Your task to perform on an android device: turn off smart reply in the gmail app Image 0: 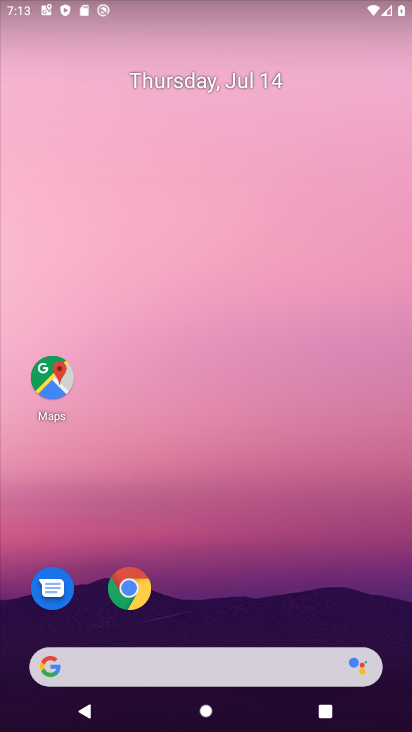
Step 0: drag from (383, 660) to (277, 111)
Your task to perform on an android device: turn off smart reply in the gmail app Image 1: 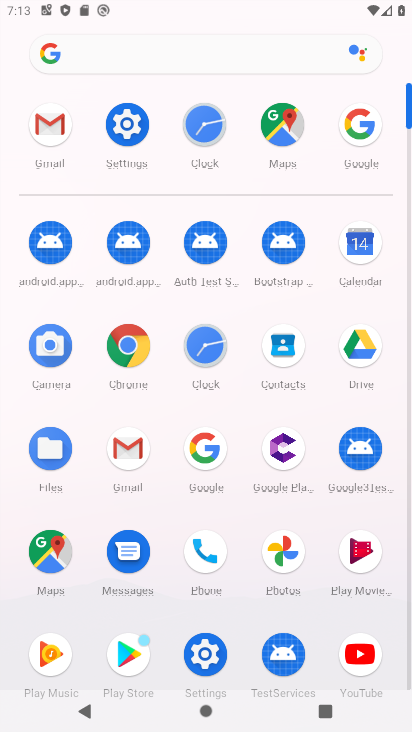
Step 1: click (126, 452)
Your task to perform on an android device: turn off smart reply in the gmail app Image 2: 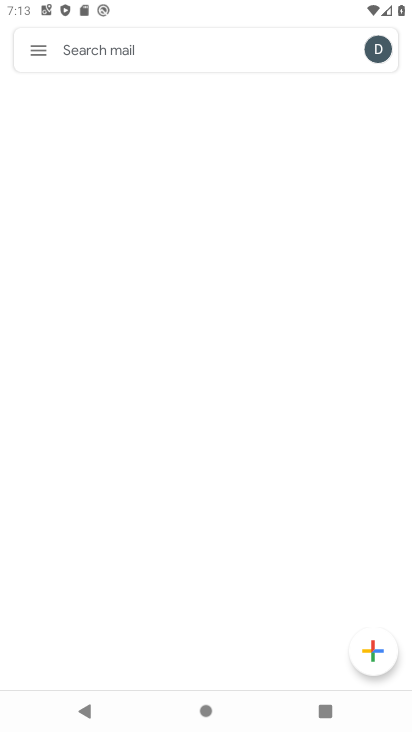
Step 2: click (36, 52)
Your task to perform on an android device: turn off smart reply in the gmail app Image 3: 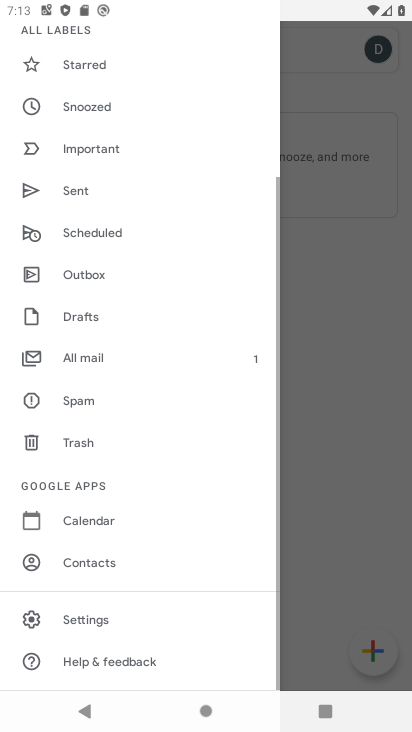
Step 3: click (109, 625)
Your task to perform on an android device: turn off smart reply in the gmail app Image 4: 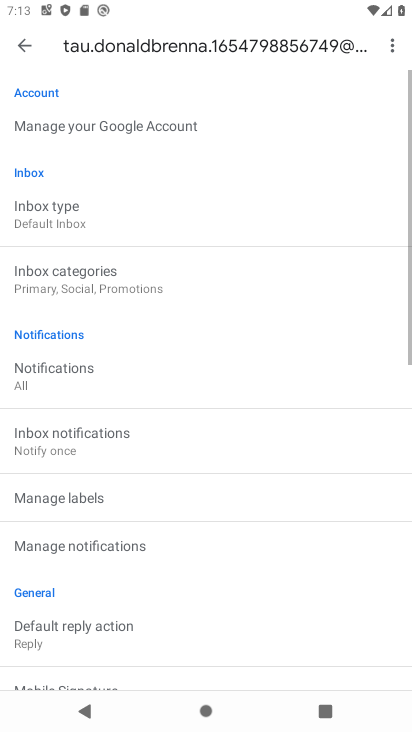
Step 4: task complete